Your task to perform on an android device: Go to Android settings Image 0: 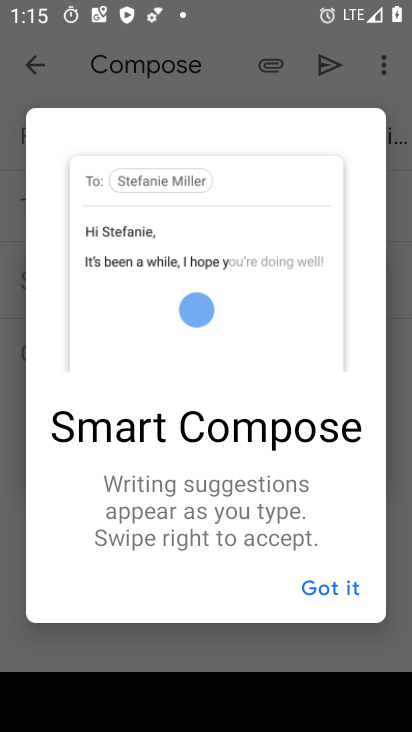
Step 0: press home button
Your task to perform on an android device: Go to Android settings Image 1: 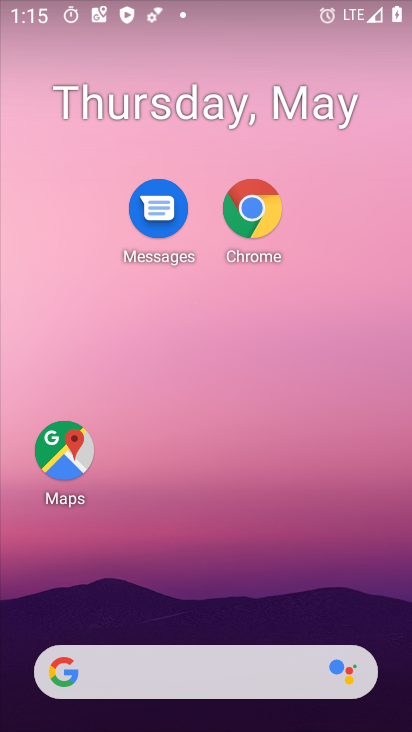
Step 1: drag from (222, 586) to (236, 318)
Your task to perform on an android device: Go to Android settings Image 2: 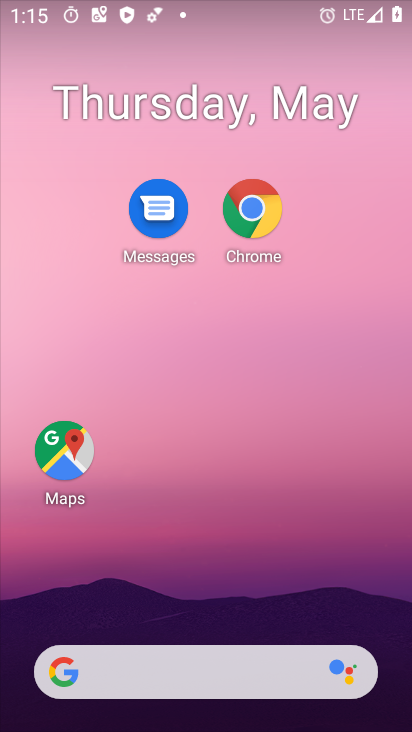
Step 2: drag from (232, 553) to (131, 64)
Your task to perform on an android device: Go to Android settings Image 3: 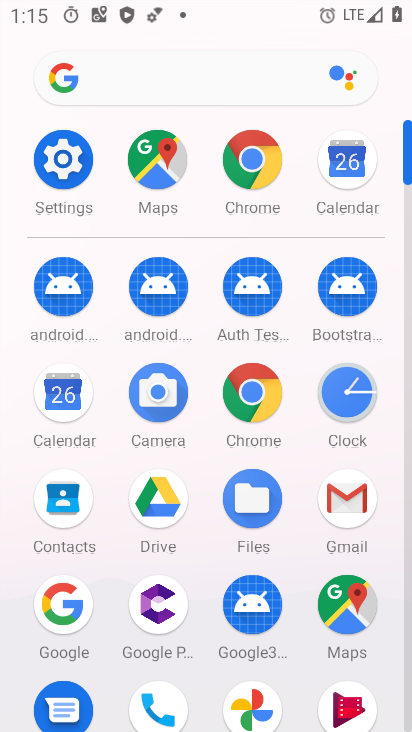
Step 3: click (63, 149)
Your task to perform on an android device: Go to Android settings Image 4: 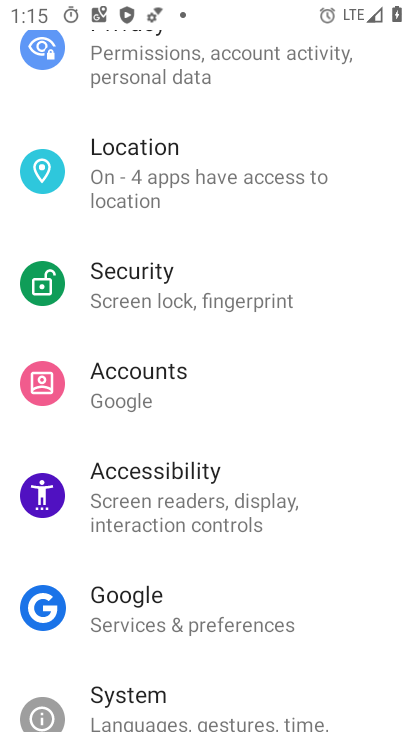
Step 4: click (217, 216)
Your task to perform on an android device: Go to Android settings Image 5: 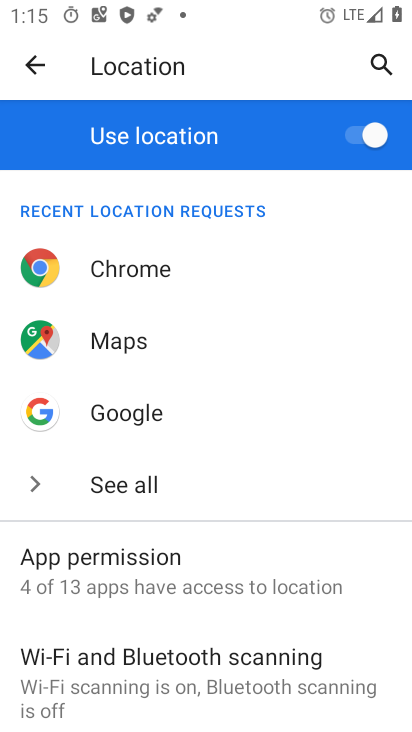
Step 5: press back button
Your task to perform on an android device: Go to Android settings Image 6: 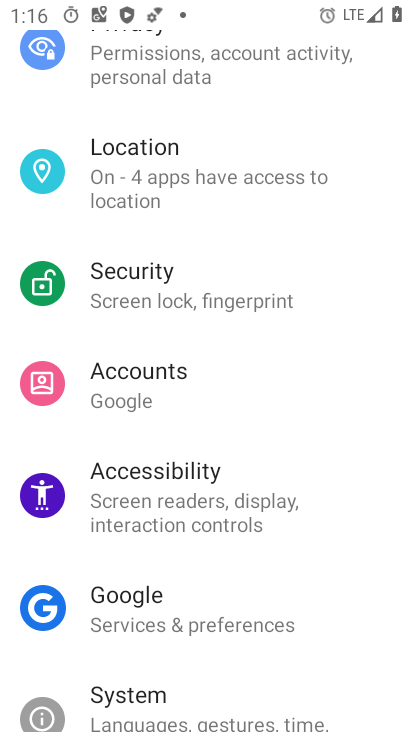
Step 6: drag from (163, 629) to (168, 297)
Your task to perform on an android device: Go to Android settings Image 7: 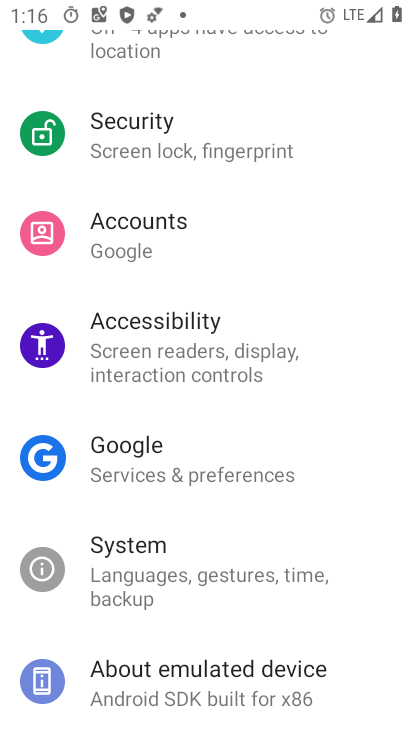
Step 7: click (153, 710)
Your task to perform on an android device: Go to Android settings Image 8: 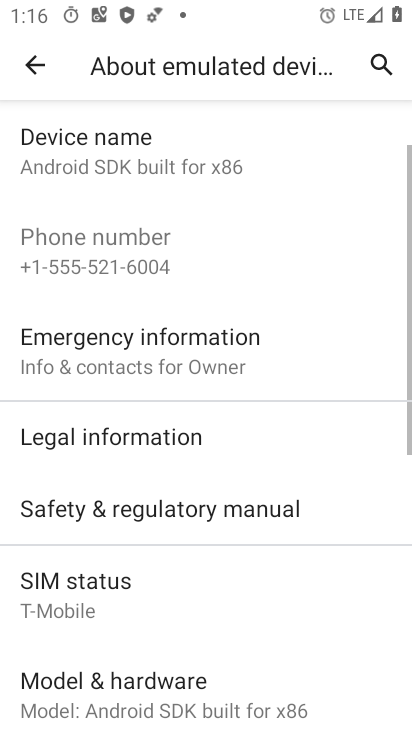
Step 8: drag from (183, 605) to (217, 359)
Your task to perform on an android device: Go to Android settings Image 9: 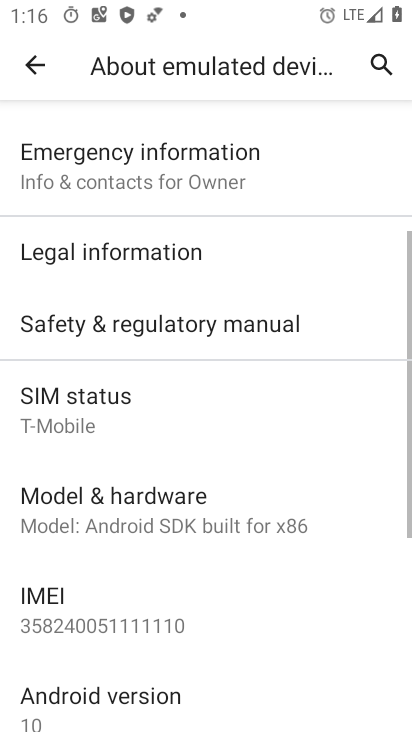
Step 9: drag from (159, 614) to (174, 325)
Your task to perform on an android device: Go to Android settings Image 10: 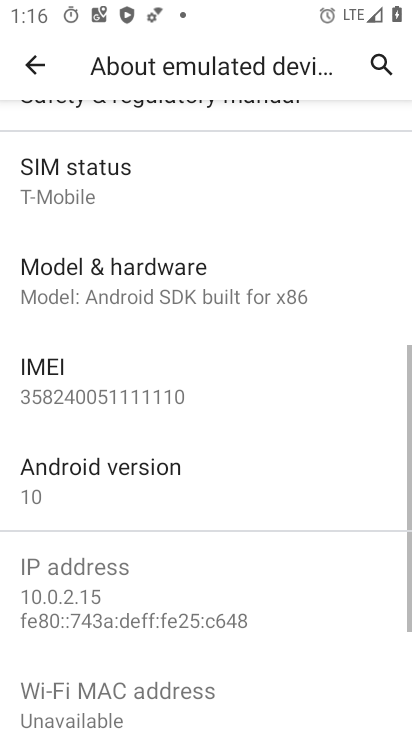
Step 10: click (65, 483)
Your task to perform on an android device: Go to Android settings Image 11: 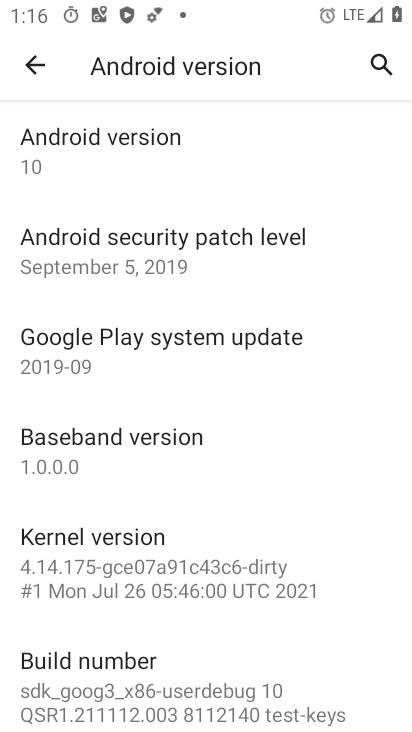
Step 11: task complete